Your task to perform on an android device: Open calendar and show me the first week of next month Image 0: 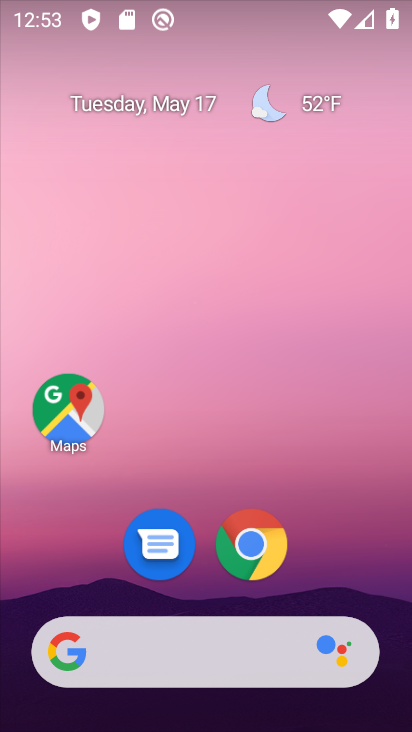
Step 0: drag from (353, 539) to (374, 118)
Your task to perform on an android device: Open calendar and show me the first week of next month Image 1: 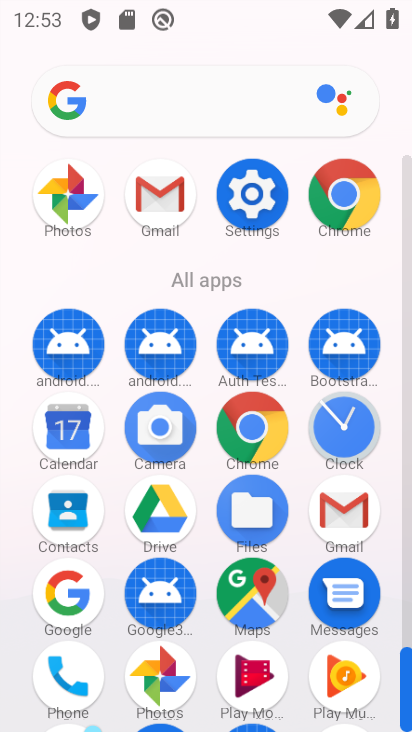
Step 1: click (45, 418)
Your task to perform on an android device: Open calendar and show me the first week of next month Image 2: 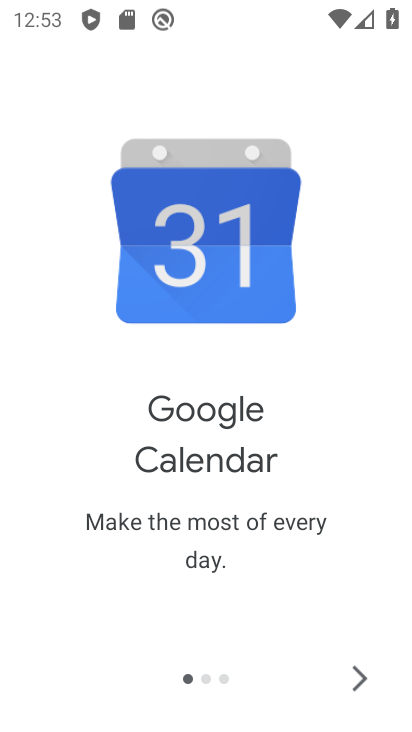
Step 2: click (361, 681)
Your task to perform on an android device: Open calendar and show me the first week of next month Image 3: 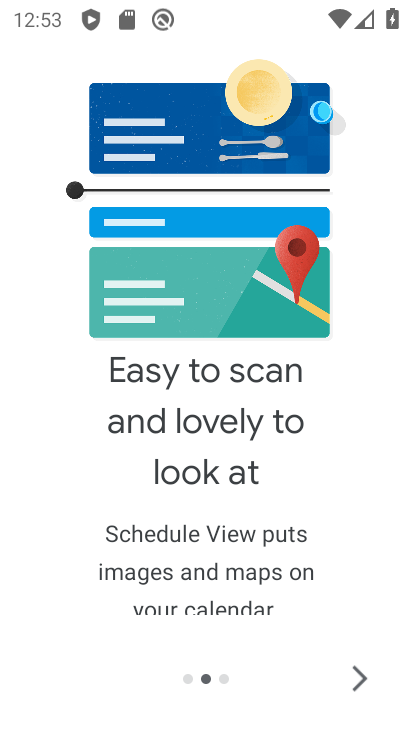
Step 3: click (361, 681)
Your task to perform on an android device: Open calendar and show me the first week of next month Image 4: 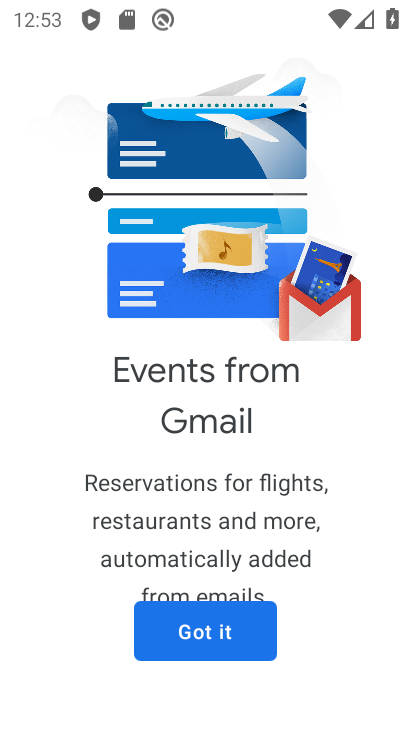
Step 4: click (230, 647)
Your task to perform on an android device: Open calendar and show me the first week of next month Image 5: 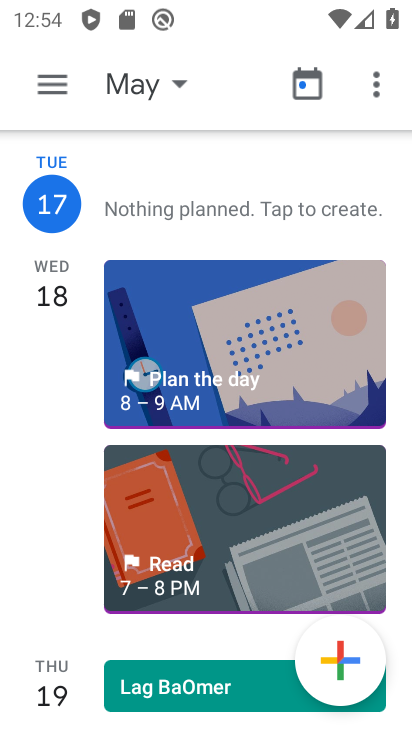
Step 5: click (123, 86)
Your task to perform on an android device: Open calendar and show me the first week of next month Image 6: 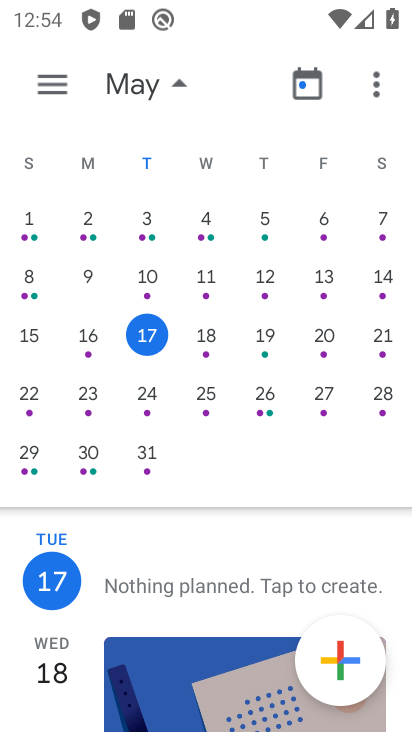
Step 6: task complete